Your task to perform on an android device: read, delete, or share a saved page in the chrome app Image 0: 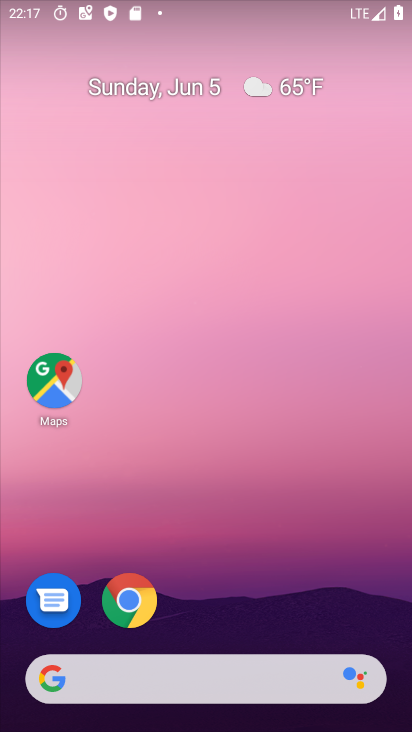
Step 0: drag from (320, 588) to (296, 272)
Your task to perform on an android device: read, delete, or share a saved page in the chrome app Image 1: 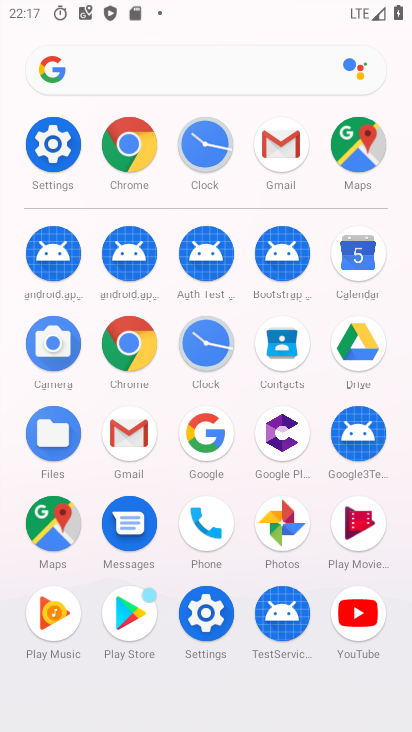
Step 1: click (125, 346)
Your task to perform on an android device: read, delete, or share a saved page in the chrome app Image 2: 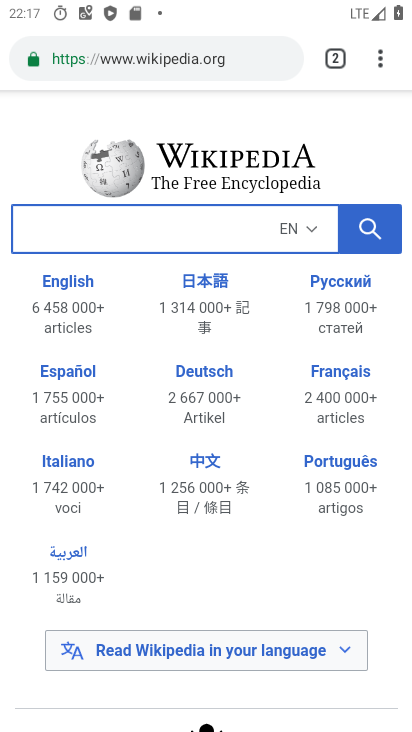
Step 2: click (379, 58)
Your task to perform on an android device: read, delete, or share a saved page in the chrome app Image 3: 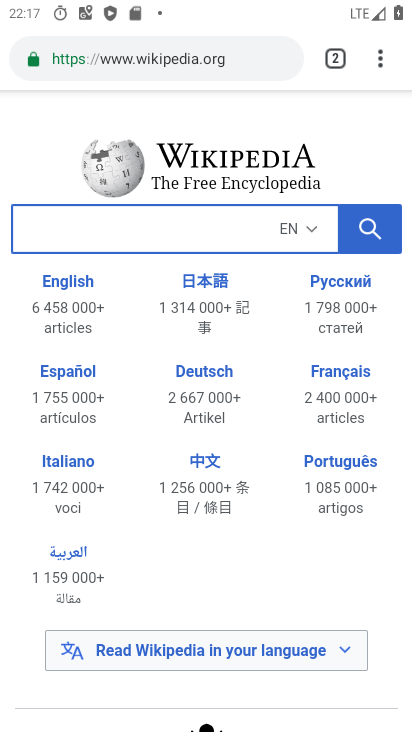
Step 3: task complete